Your task to perform on an android device: set the timer Image 0: 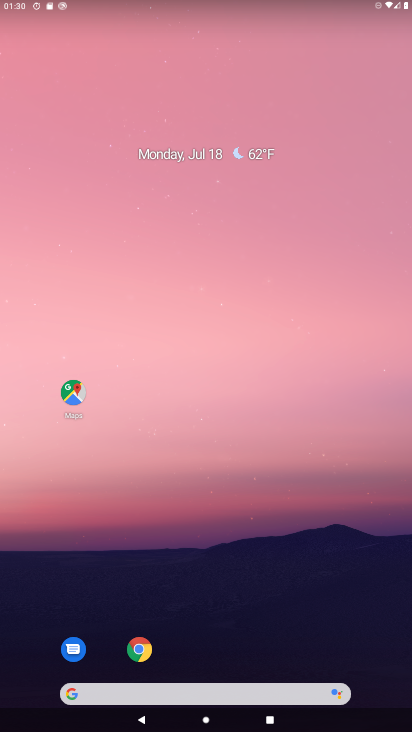
Step 0: drag from (18, 707) to (195, 109)
Your task to perform on an android device: set the timer Image 1: 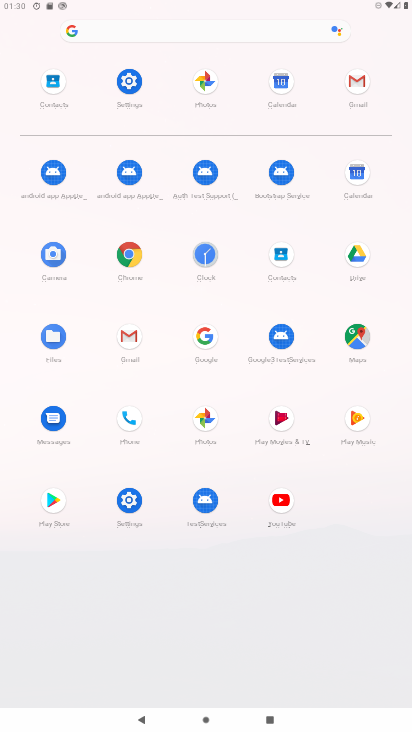
Step 1: click (207, 265)
Your task to perform on an android device: set the timer Image 2: 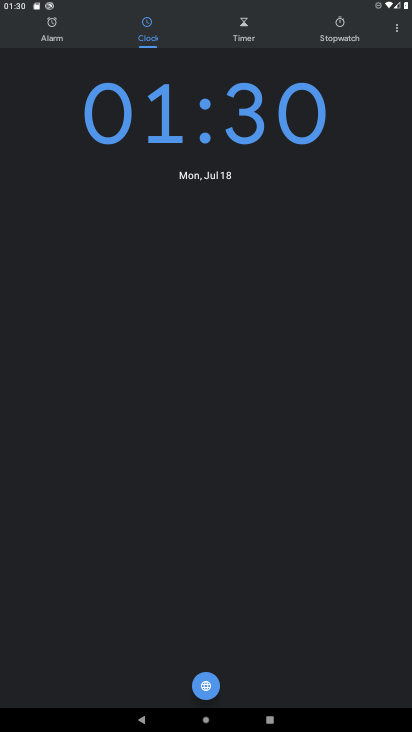
Step 2: click (246, 33)
Your task to perform on an android device: set the timer Image 3: 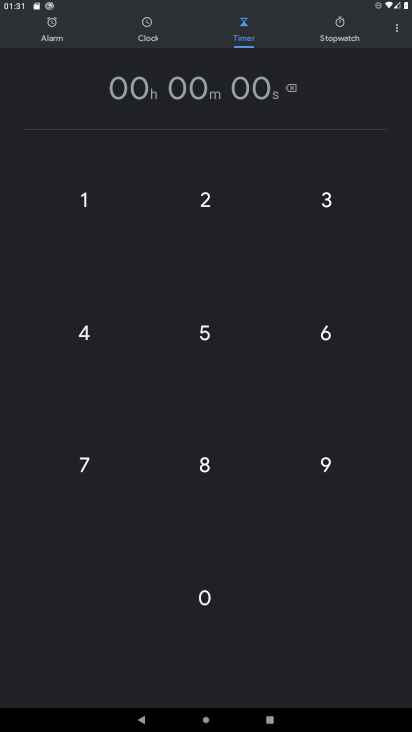
Step 3: click (208, 309)
Your task to perform on an android device: set the timer Image 4: 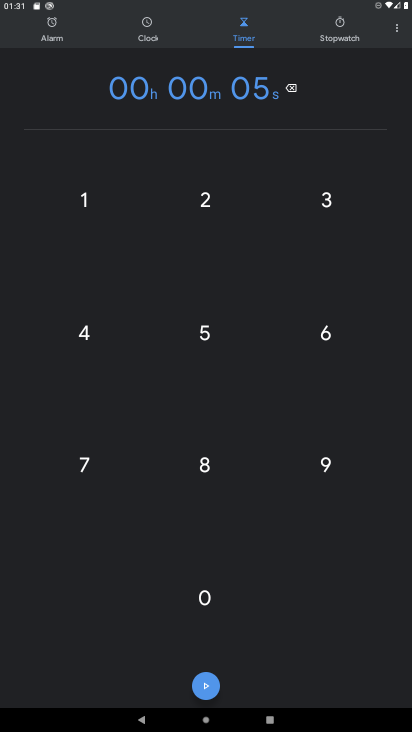
Step 4: click (80, 197)
Your task to perform on an android device: set the timer Image 5: 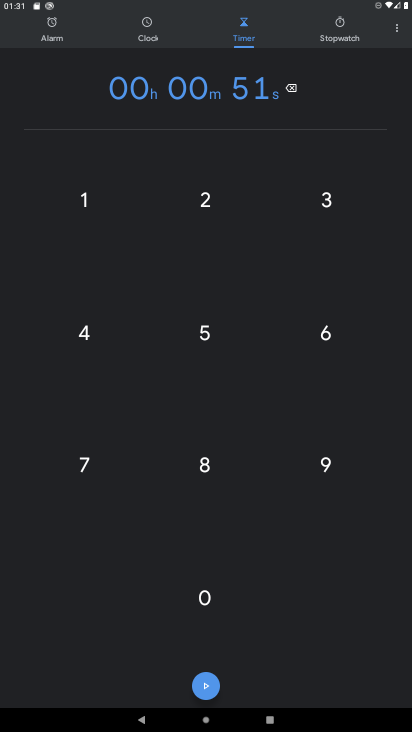
Step 5: click (112, 69)
Your task to perform on an android device: set the timer Image 6: 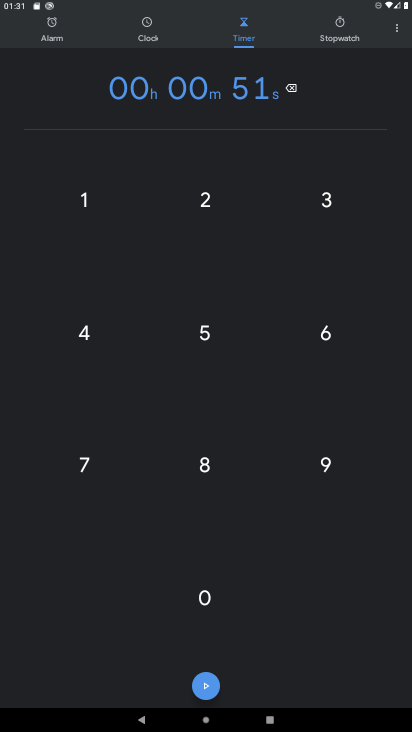
Step 6: click (129, 95)
Your task to perform on an android device: set the timer Image 7: 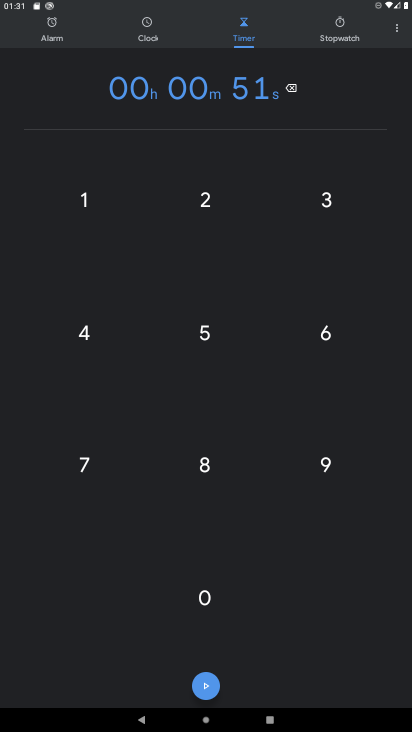
Step 7: click (224, 196)
Your task to perform on an android device: set the timer Image 8: 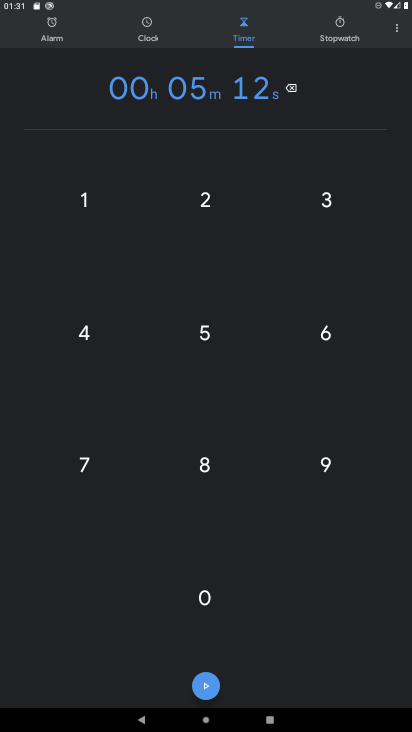
Step 8: click (203, 200)
Your task to perform on an android device: set the timer Image 9: 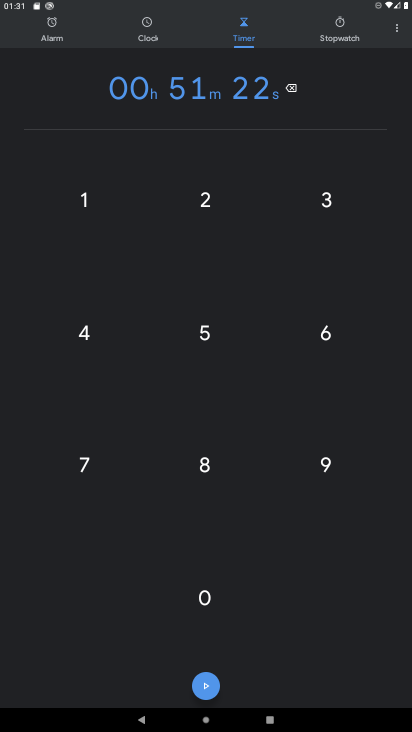
Step 9: click (86, 205)
Your task to perform on an android device: set the timer Image 10: 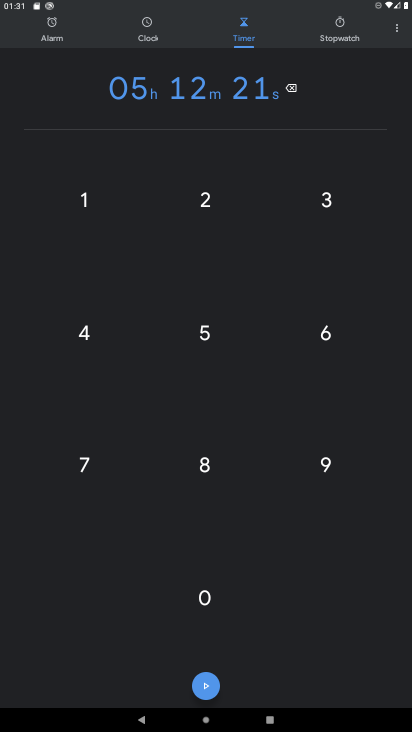
Step 10: click (204, 690)
Your task to perform on an android device: set the timer Image 11: 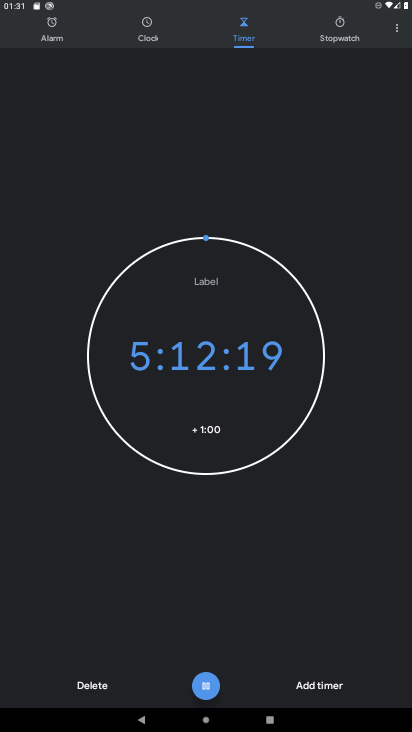
Step 11: click (202, 688)
Your task to perform on an android device: set the timer Image 12: 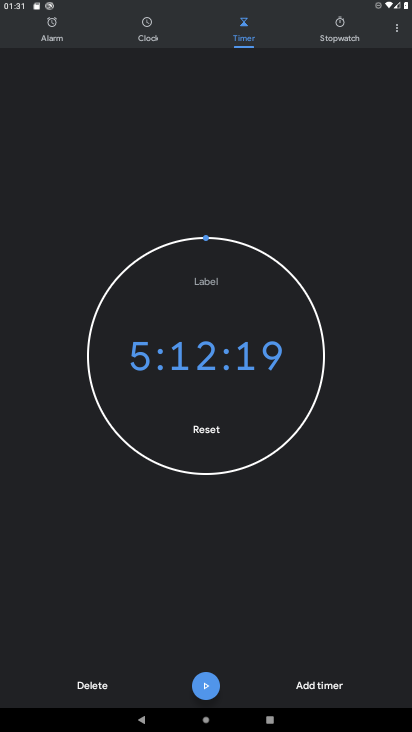
Step 12: task complete